Your task to perform on an android device: check google app version Image 0: 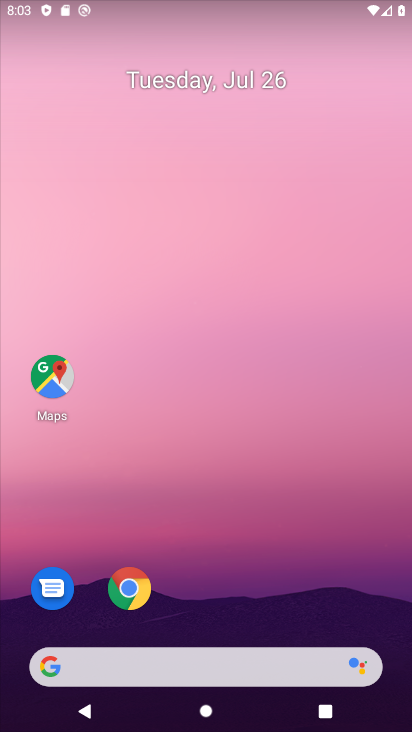
Step 0: drag from (230, 348) to (267, 101)
Your task to perform on an android device: check google app version Image 1: 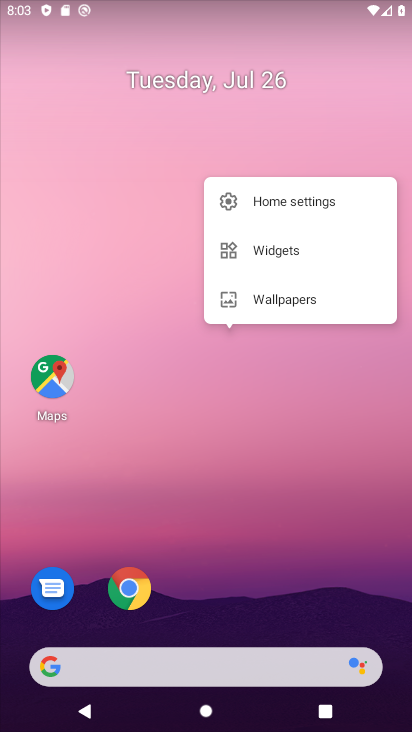
Step 1: drag from (192, 610) to (278, 39)
Your task to perform on an android device: check google app version Image 2: 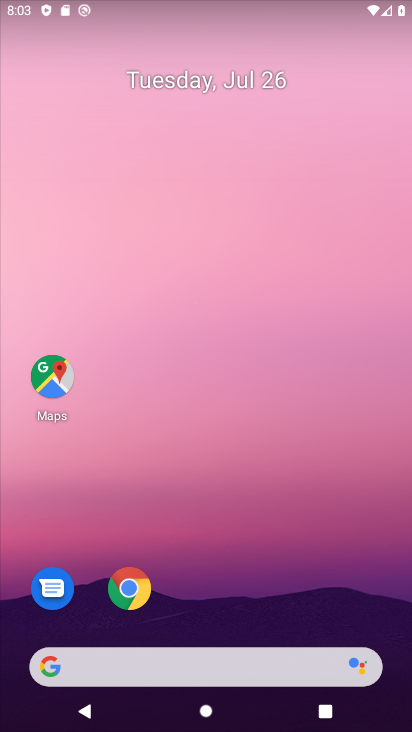
Step 2: drag from (182, 598) to (230, 93)
Your task to perform on an android device: check google app version Image 3: 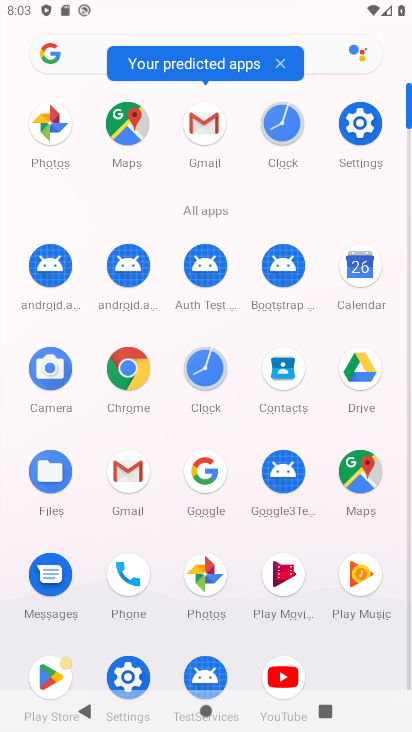
Step 3: click (218, 456)
Your task to perform on an android device: check google app version Image 4: 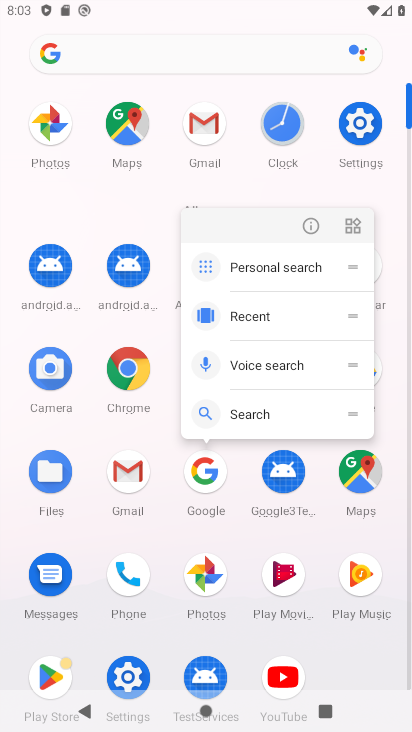
Step 4: click (204, 473)
Your task to perform on an android device: check google app version Image 5: 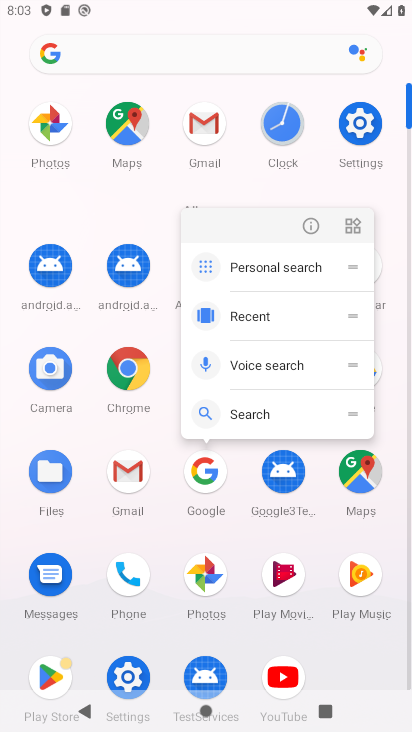
Step 5: click (315, 204)
Your task to perform on an android device: check google app version Image 6: 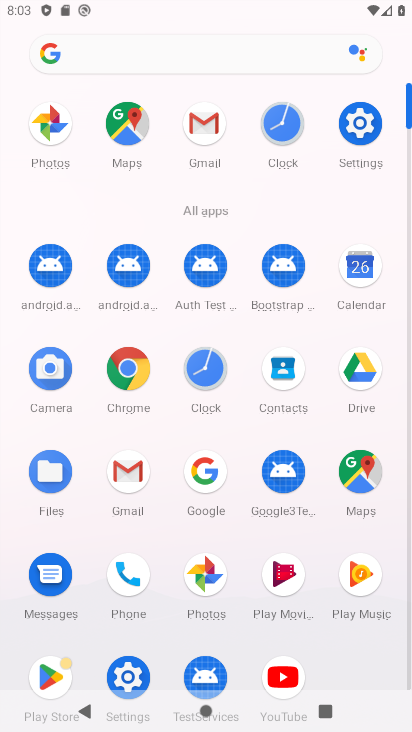
Step 6: drag from (390, 636) to (0, 553)
Your task to perform on an android device: check google app version Image 7: 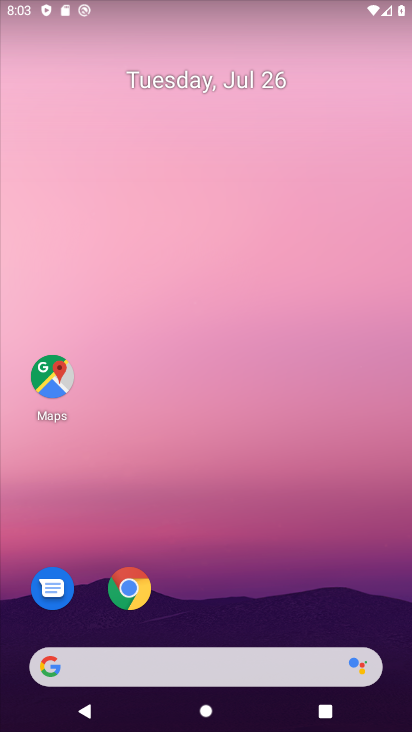
Step 7: click (162, 518)
Your task to perform on an android device: check google app version Image 8: 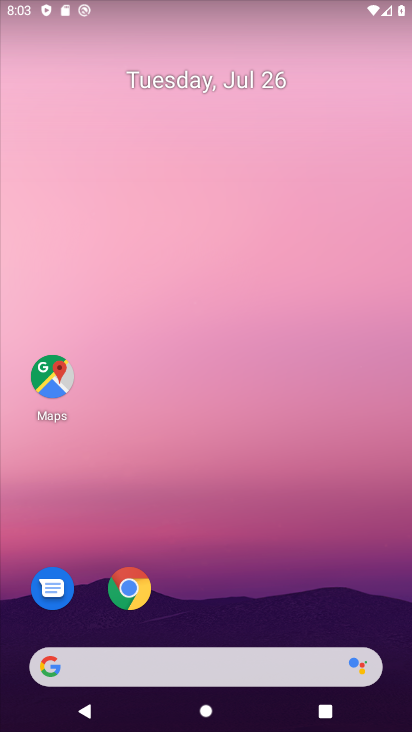
Step 8: click (212, 477)
Your task to perform on an android device: check google app version Image 9: 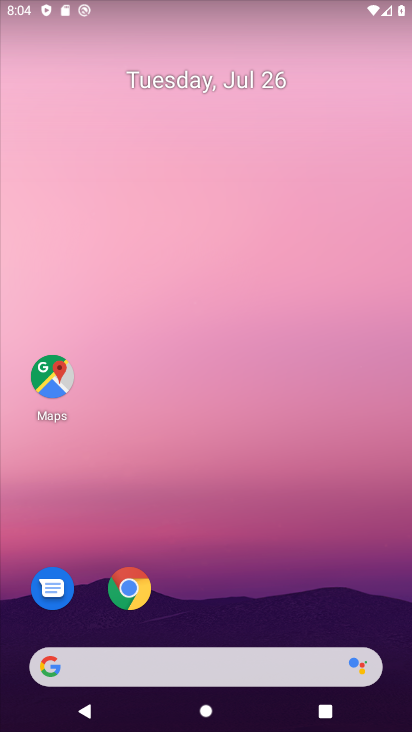
Step 9: click (225, 352)
Your task to perform on an android device: check google app version Image 10: 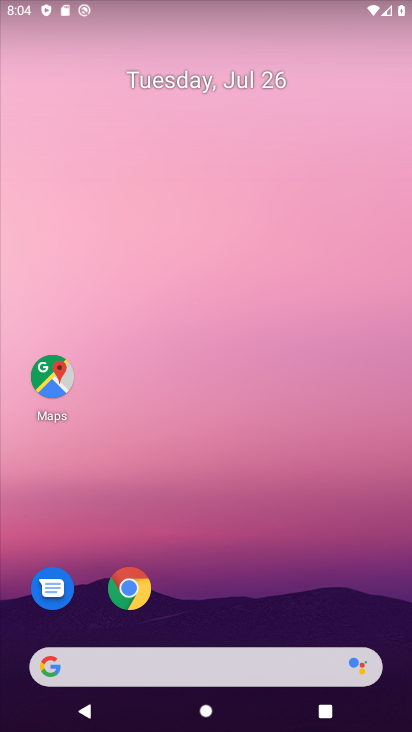
Step 10: click (283, 89)
Your task to perform on an android device: check google app version Image 11: 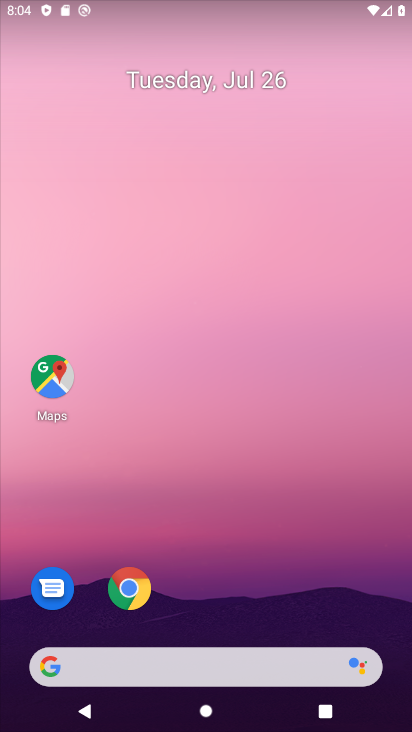
Step 11: drag from (253, 187) to (276, 237)
Your task to perform on an android device: check google app version Image 12: 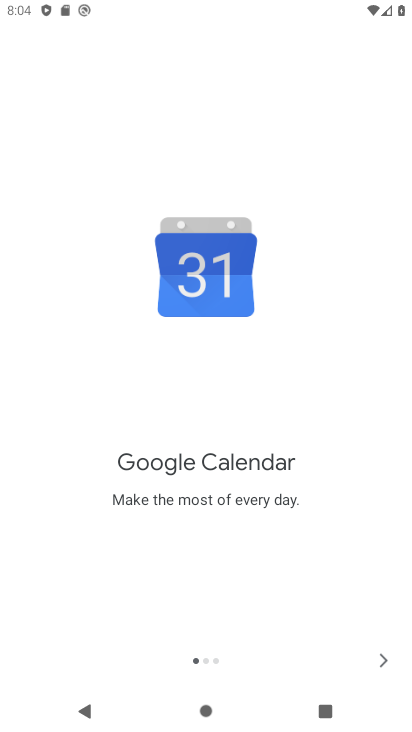
Step 12: drag from (216, 637) to (365, 312)
Your task to perform on an android device: check google app version Image 13: 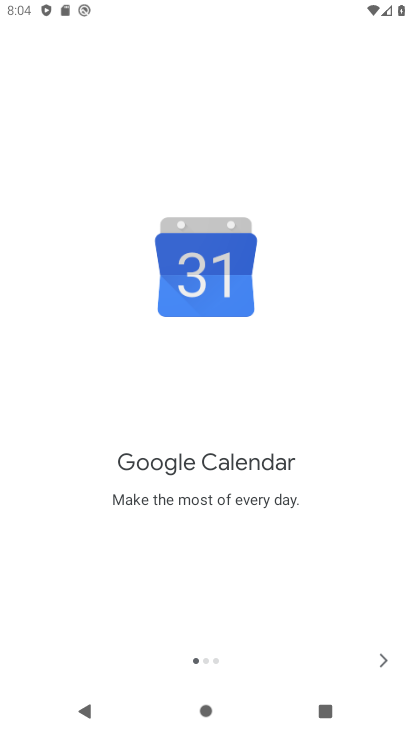
Step 13: press home button
Your task to perform on an android device: check google app version Image 14: 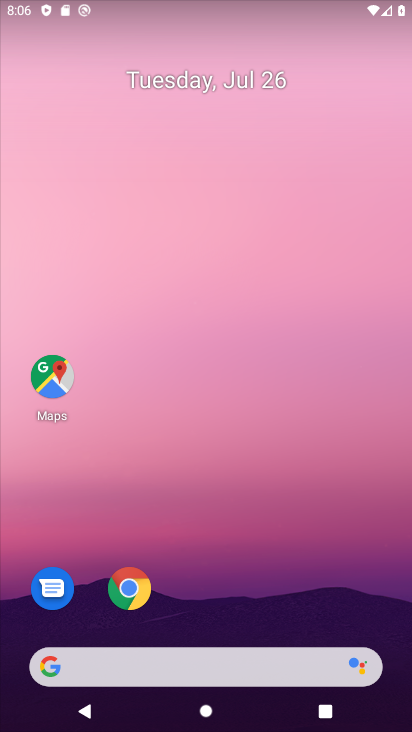
Step 14: drag from (188, 616) to (306, 44)
Your task to perform on an android device: check google app version Image 15: 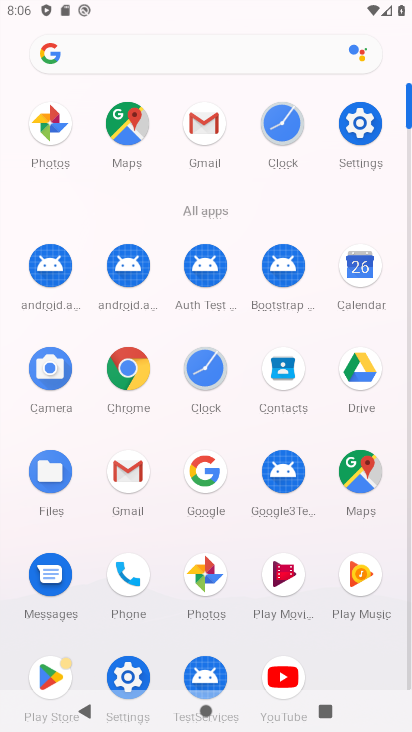
Step 15: click (200, 462)
Your task to perform on an android device: check google app version Image 16: 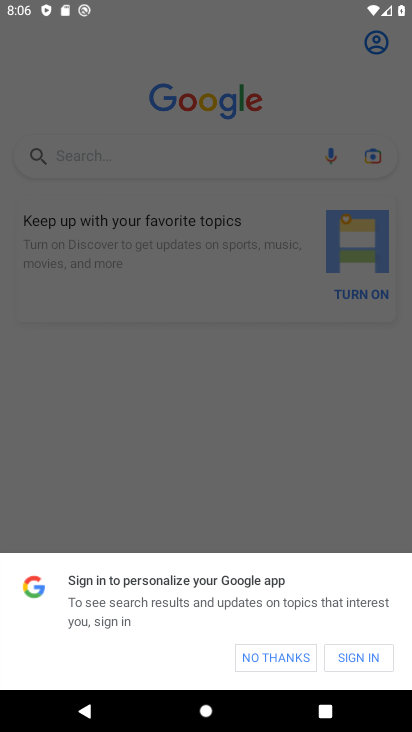
Step 16: drag from (197, 494) to (304, 98)
Your task to perform on an android device: check google app version Image 17: 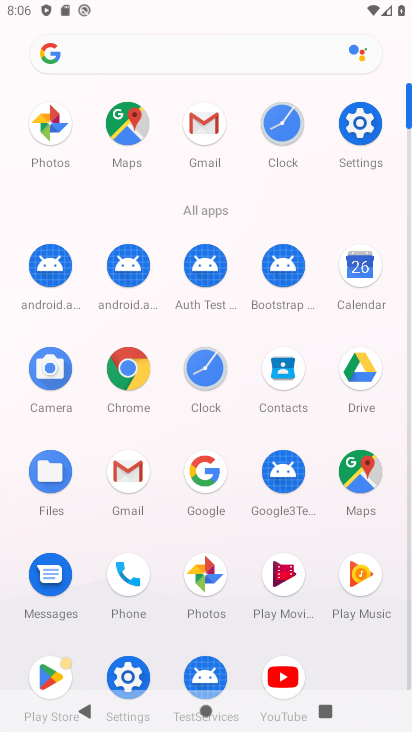
Step 17: click (200, 474)
Your task to perform on an android device: check google app version Image 18: 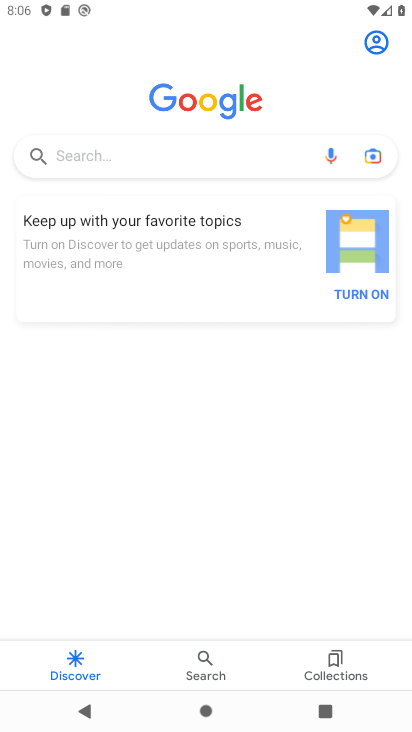
Step 18: click (369, 53)
Your task to perform on an android device: check google app version Image 19: 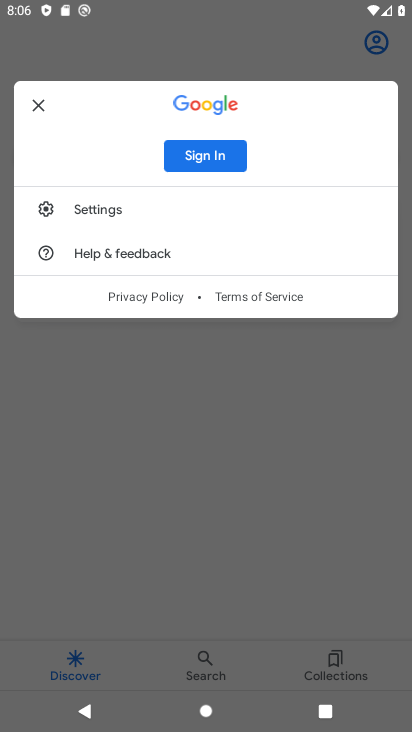
Step 19: click (82, 215)
Your task to perform on an android device: check google app version Image 20: 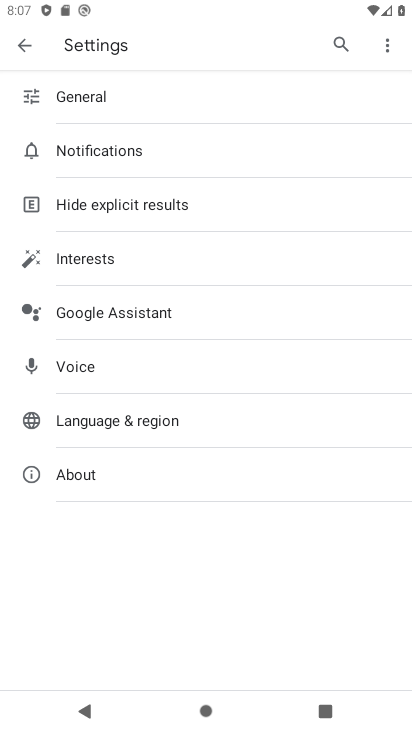
Step 20: click (135, 481)
Your task to perform on an android device: check google app version Image 21: 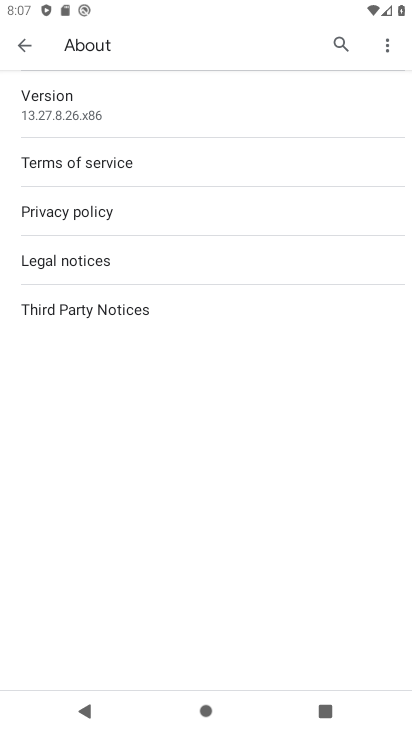
Step 21: click (139, 129)
Your task to perform on an android device: check google app version Image 22: 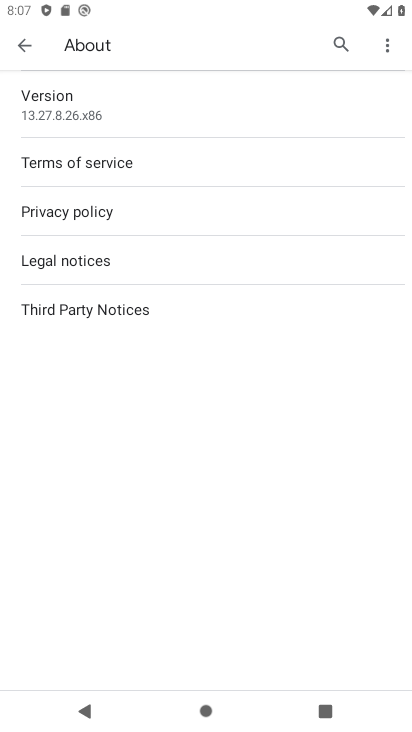
Step 22: click (127, 111)
Your task to perform on an android device: check google app version Image 23: 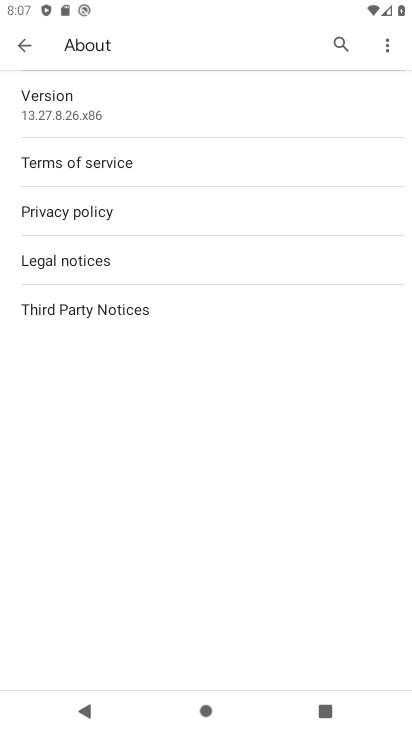
Step 23: task complete